Your task to perform on an android device: move an email to a new category in the gmail app Image 0: 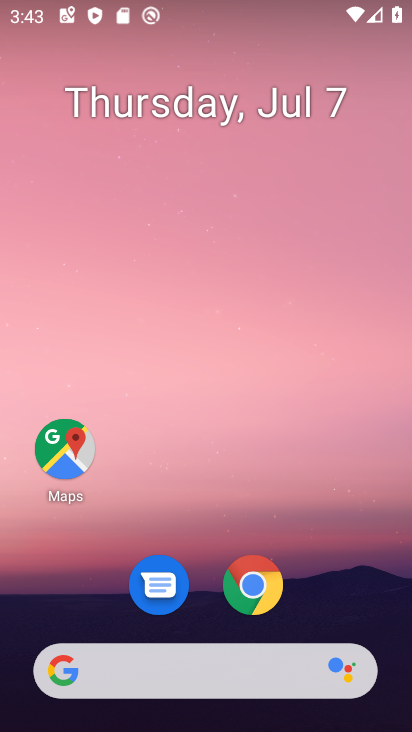
Step 0: drag from (310, 531) to (264, 41)
Your task to perform on an android device: move an email to a new category in the gmail app Image 1: 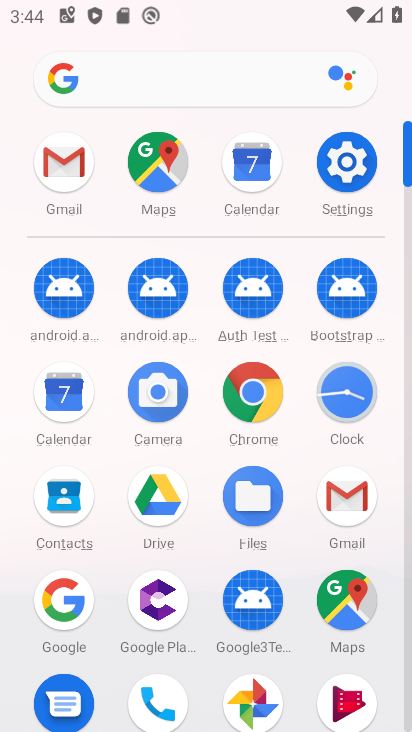
Step 1: click (60, 165)
Your task to perform on an android device: move an email to a new category in the gmail app Image 2: 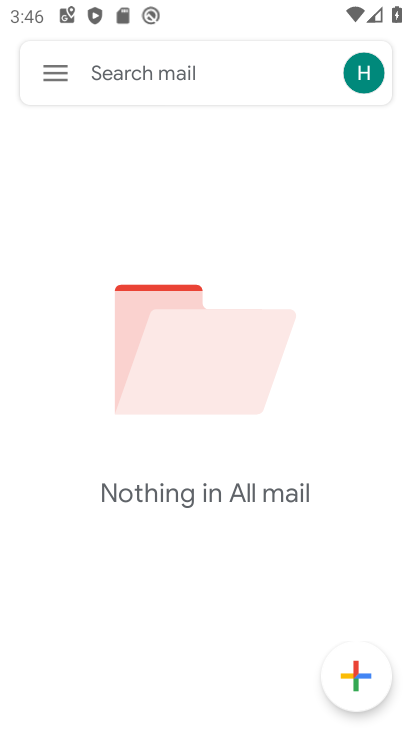
Step 2: task complete